Your task to perform on an android device: What is the news today? Image 0: 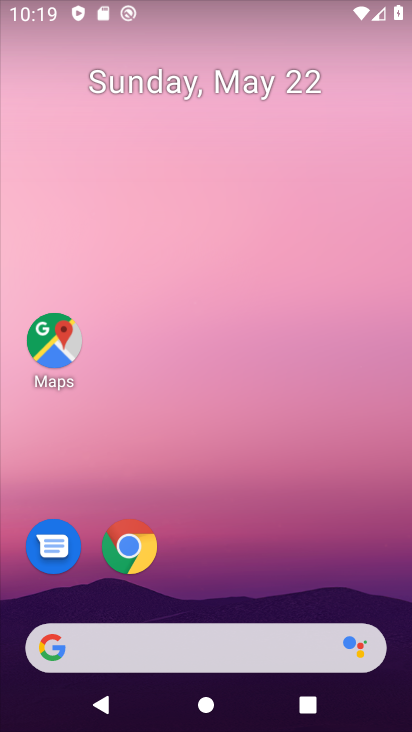
Step 0: drag from (220, 465) to (175, 66)
Your task to perform on an android device: What is the news today? Image 1: 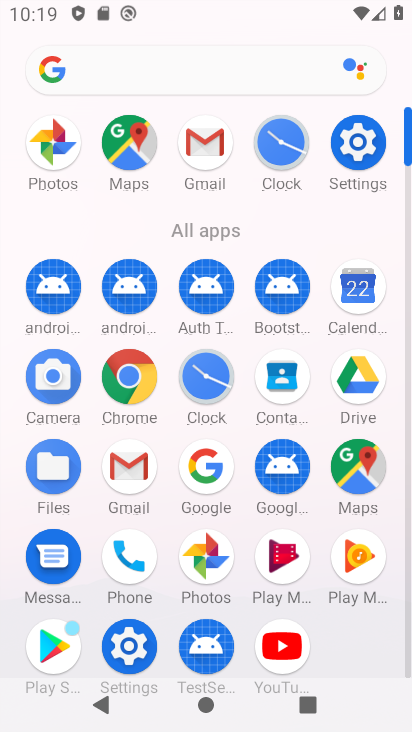
Step 1: click (201, 466)
Your task to perform on an android device: What is the news today? Image 2: 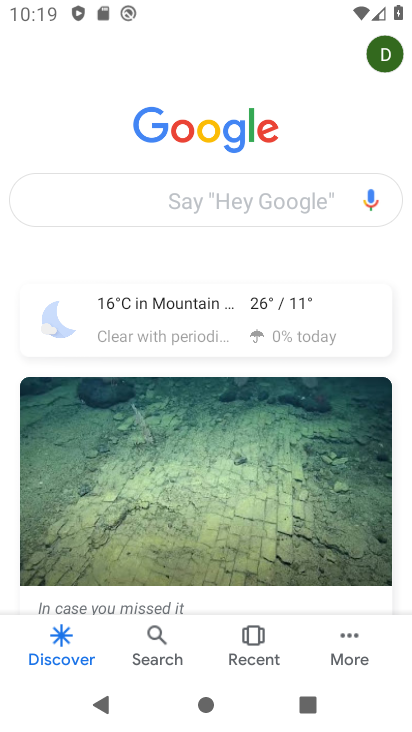
Step 2: task complete